Your task to perform on an android device: Open Chrome and go to settings Image 0: 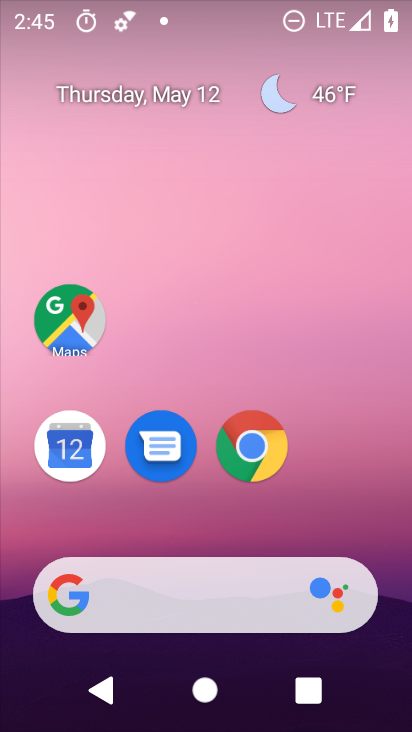
Step 0: click (248, 458)
Your task to perform on an android device: Open Chrome and go to settings Image 1: 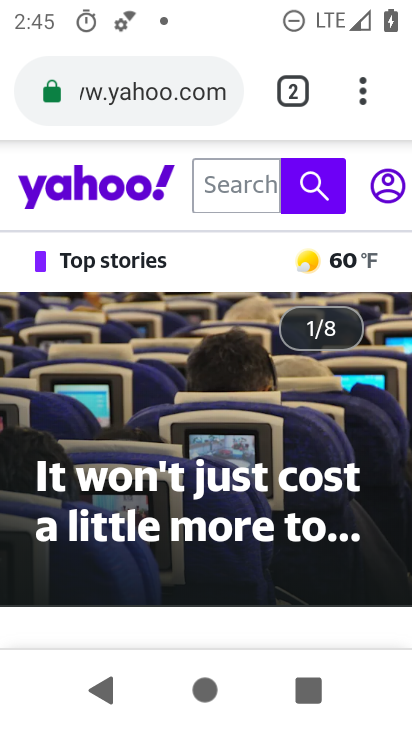
Step 1: task complete